Your task to perform on an android device: toggle sleep mode Image 0: 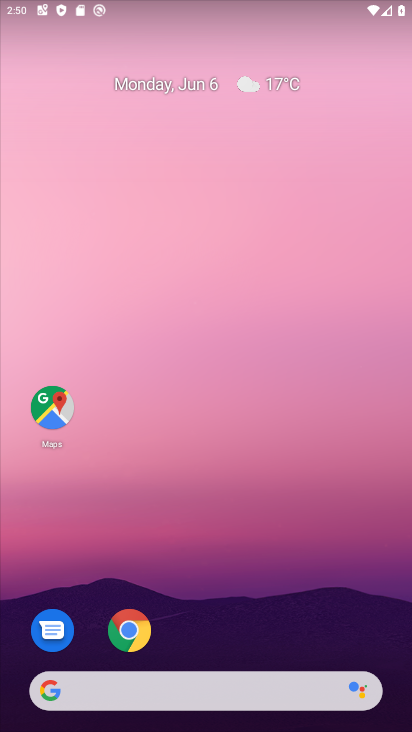
Step 0: drag from (240, 618) to (328, 5)
Your task to perform on an android device: toggle sleep mode Image 1: 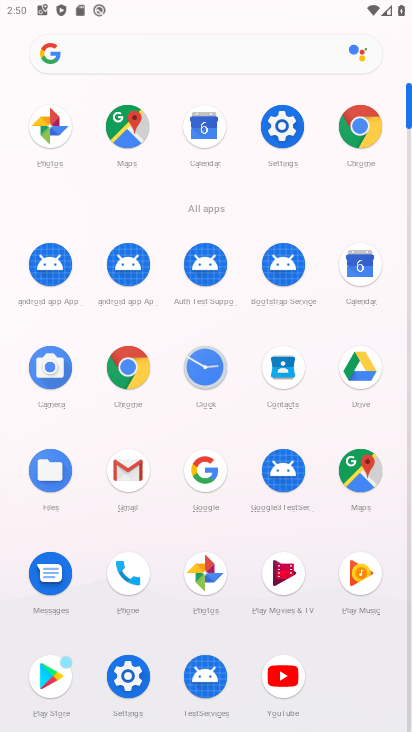
Step 1: click (288, 128)
Your task to perform on an android device: toggle sleep mode Image 2: 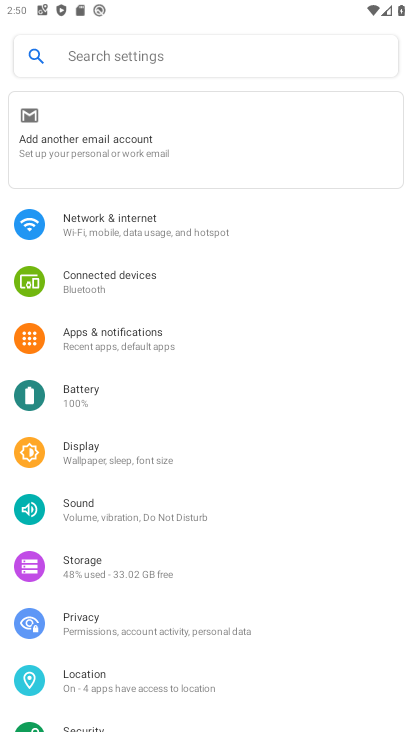
Step 2: click (107, 55)
Your task to perform on an android device: toggle sleep mode Image 3: 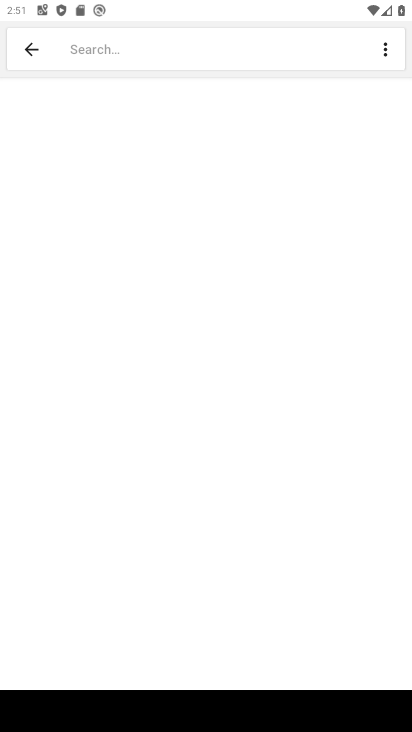
Step 3: type "sleep mode"
Your task to perform on an android device: toggle sleep mode Image 4: 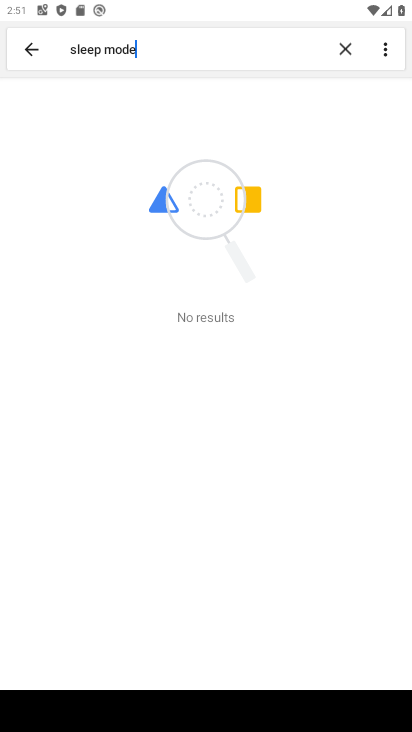
Step 4: task complete